Your task to perform on an android device: turn on location history Image 0: 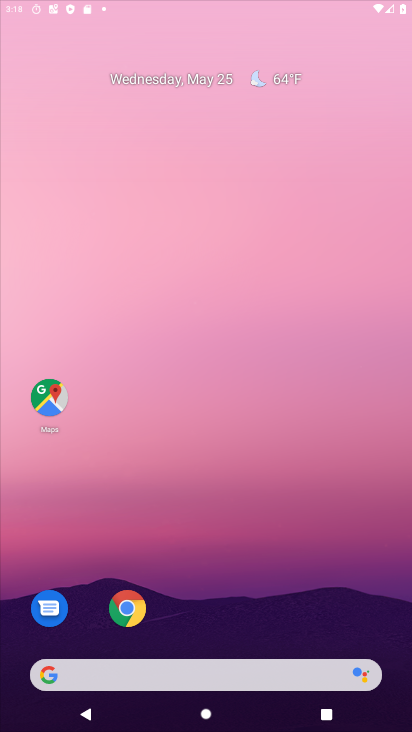
Step 0: click (320, 29)
Your task to perform on an android device: turn on location history Image 1: 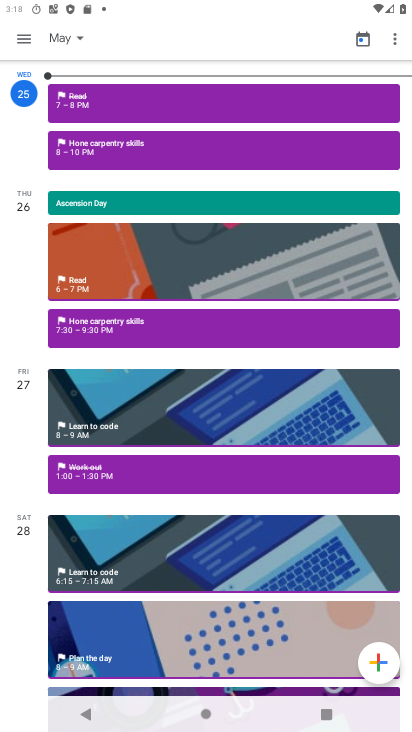
Step 1: press home button
Your task to perform on an android device: turn on location history Image 2: 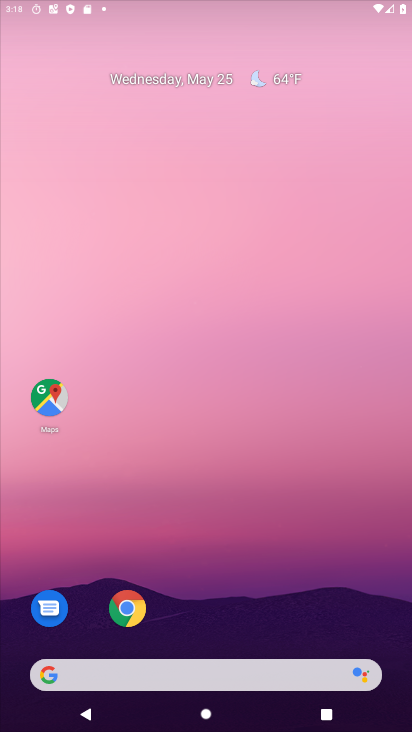
Step 2: drag from (262, 465) to (210, 138)
Your task to perform on an android device: turn on location history Image 3: 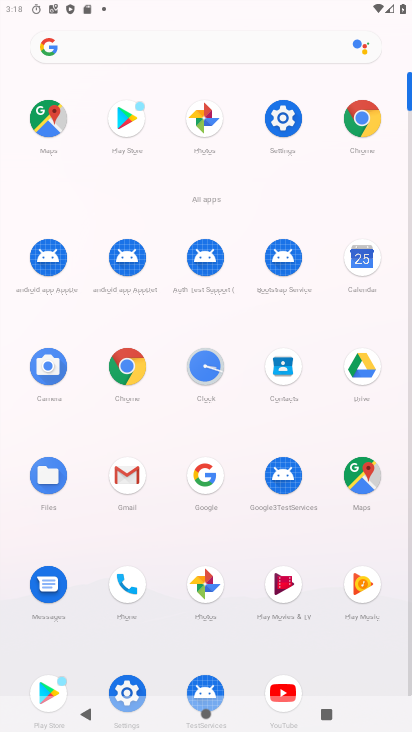
Step 3: click (284, 125)
Your task to perform on an android device: turn on location history Image 4: 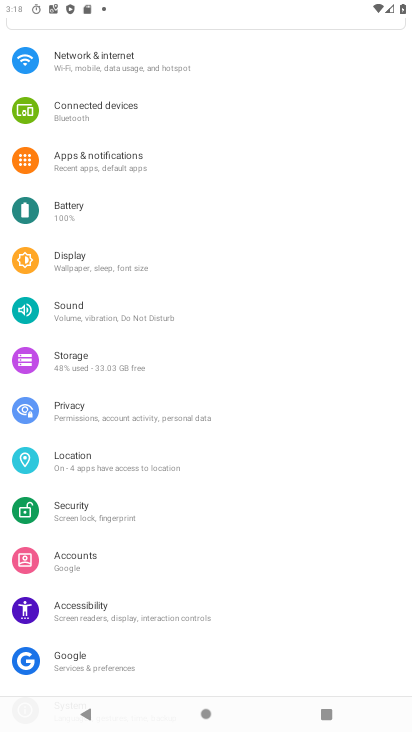
Step 4: click (114, 468)
Your task to perform on an android device: turn on location history Image 5: 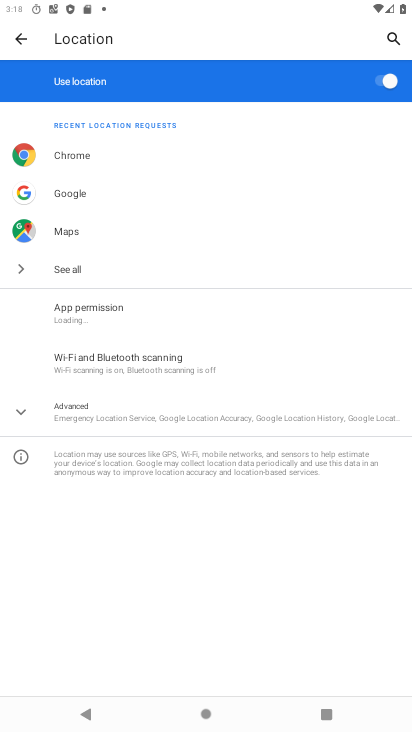
Step 5: click (102, 410)
Your task to perform on an android device: turn on location history Image 6: 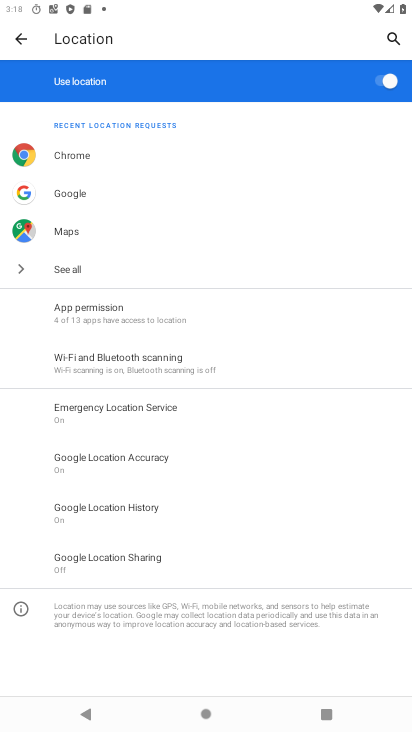
Step 6: click (144, 506)
Your task to perform on an android device: turn on location history Image 7: 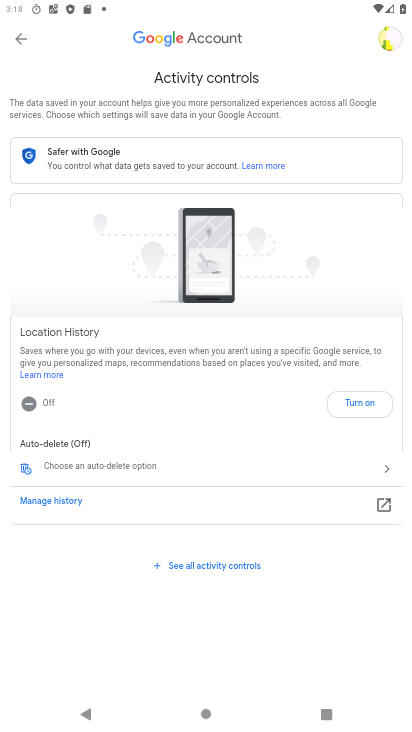
Step 7: click (350, 403)
Your task to perform on an android device: turn on location history Image 8: 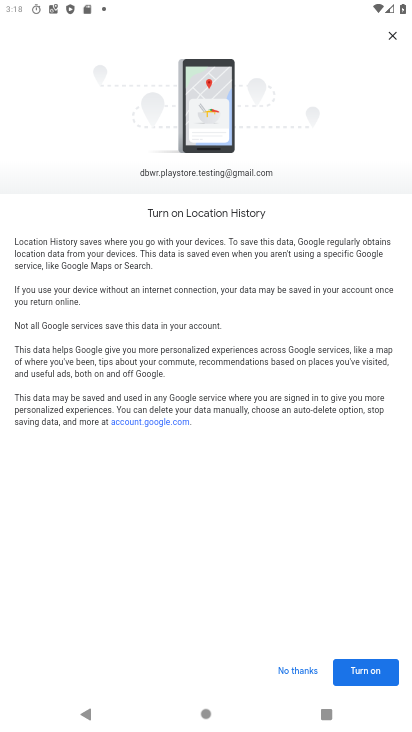
Step 8: click (377, 674)
Your task to perform on an android device: turn on location history Image 9: 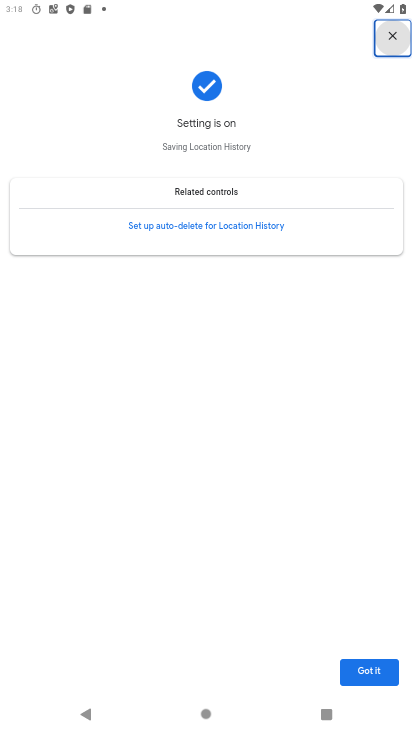
Step 9: task complete